Your task to perform on an android device: Find the nearest electronics store that's open today Image 0: 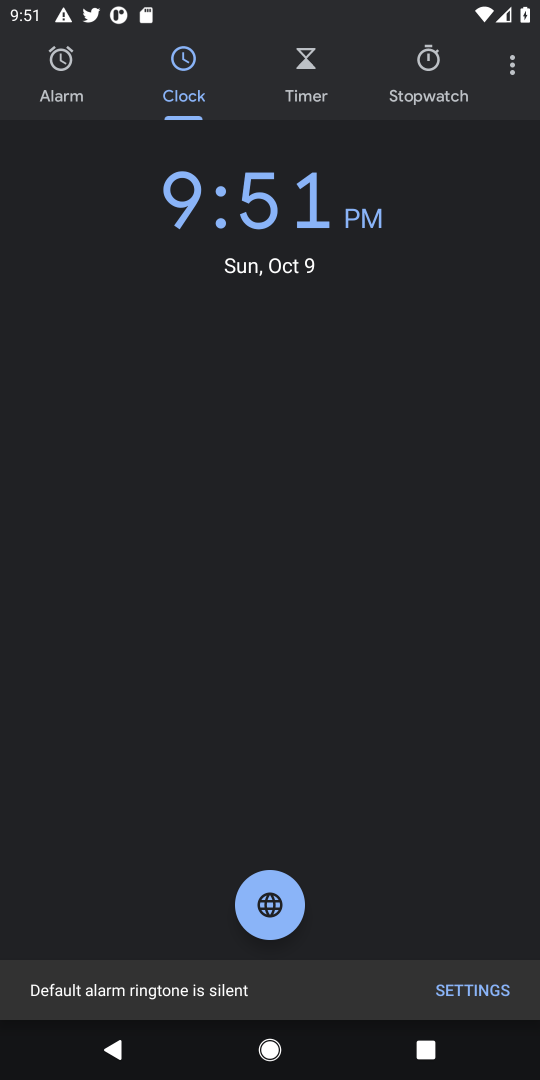
Step 0: press home button
Your task to perform on an android device: Find the nearest electronics store that's open today Image 1: 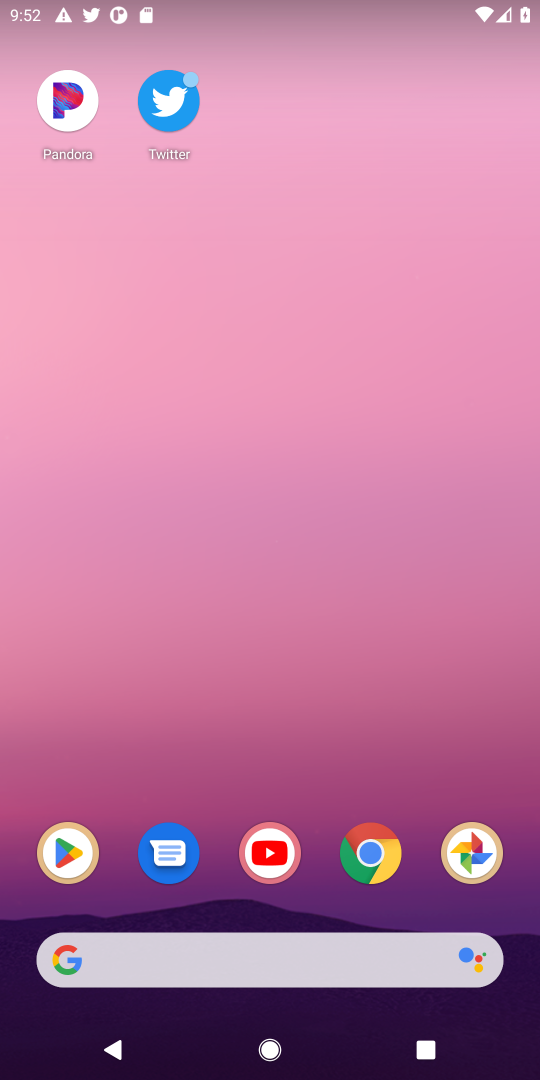
Step 1: type "electronics store that's open today"
Your task to perform on an android device: Find the nearest electronics store that's open today Image 2: 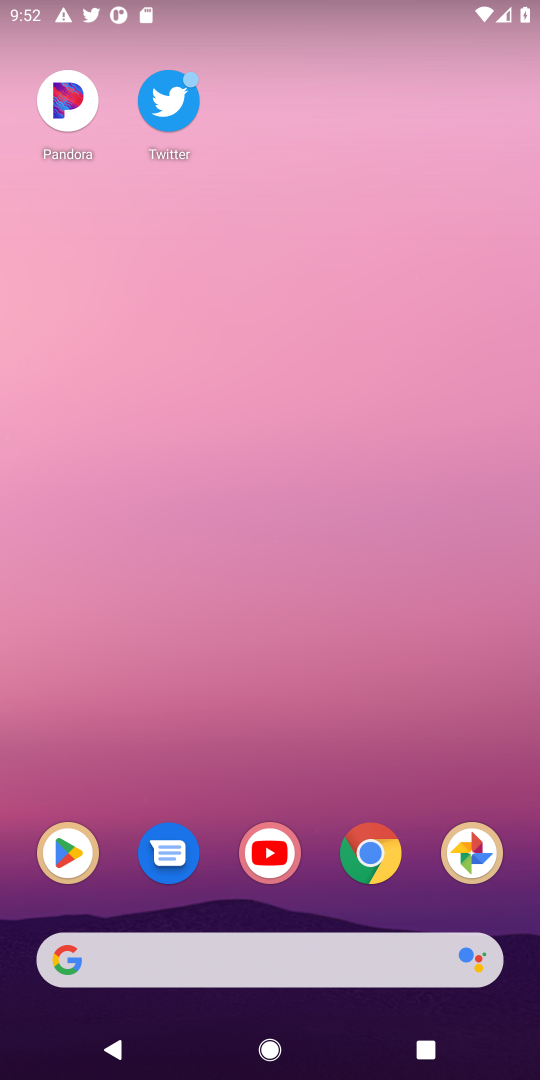
Step 2: click (373, 862)
Your task to perform on an android device: Find the nearest electronics store that's open today Image 3: 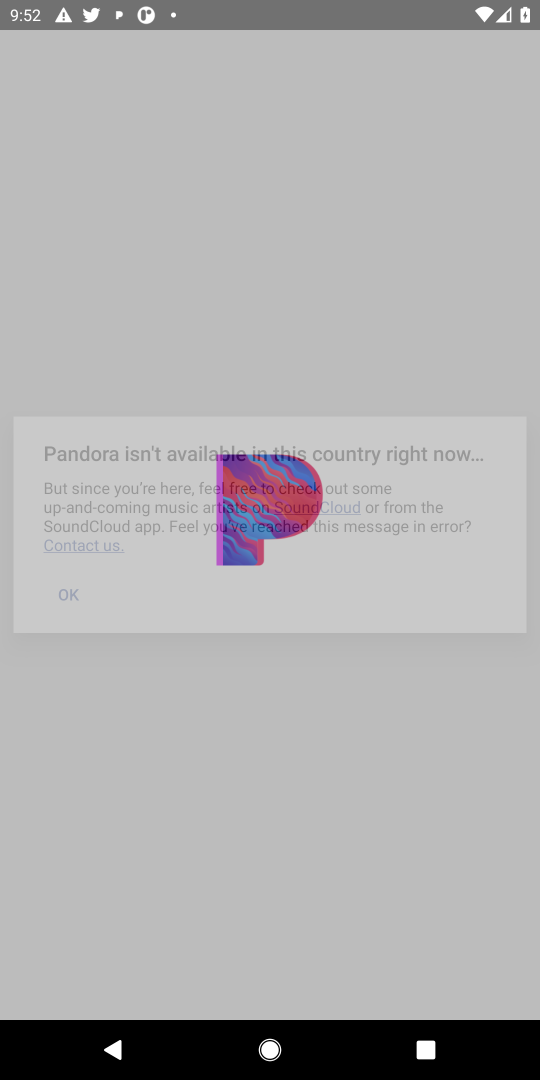
Step 3: click (361, 954)
Your task to perform on an android device: Find the nearest electronics store that's open today Image 4: 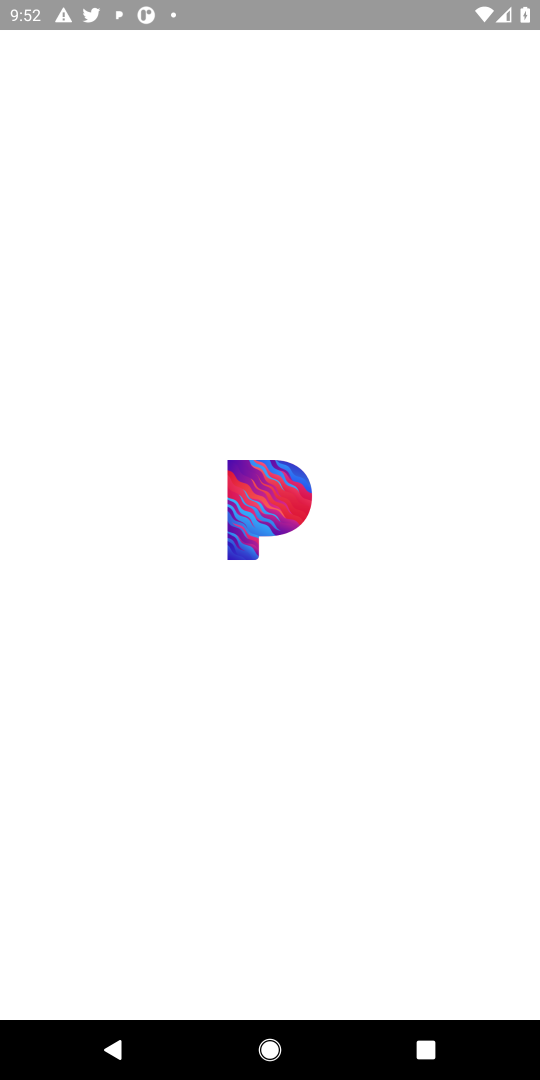
Step 4: click (442, 1042)
Your task to perform on an android device: Find the nearest electronics store that's open today Image 5: 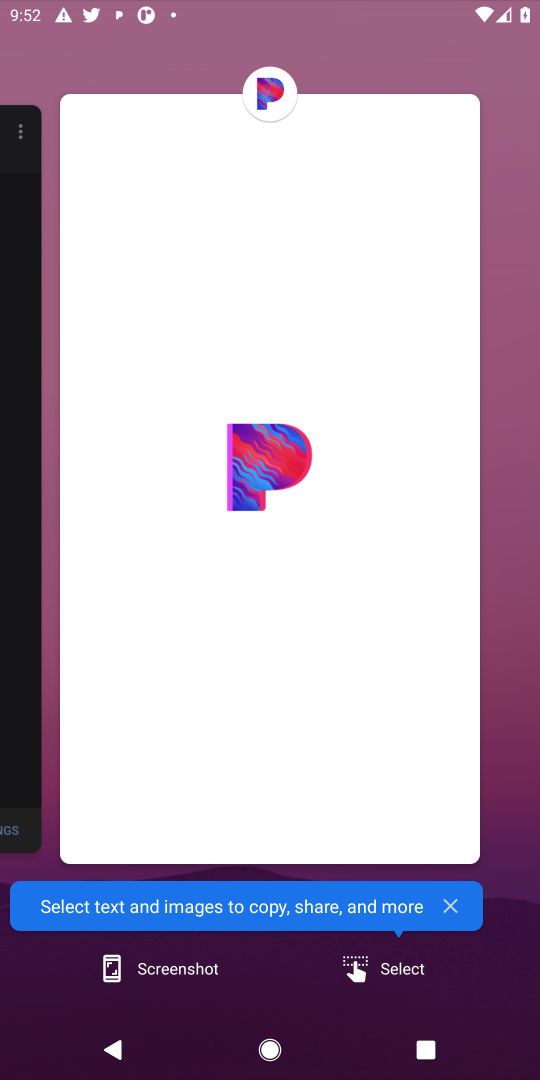
Step 5: press home button
Your task to perform on an android device: Find the nearest electronics store that's open today Image 6: 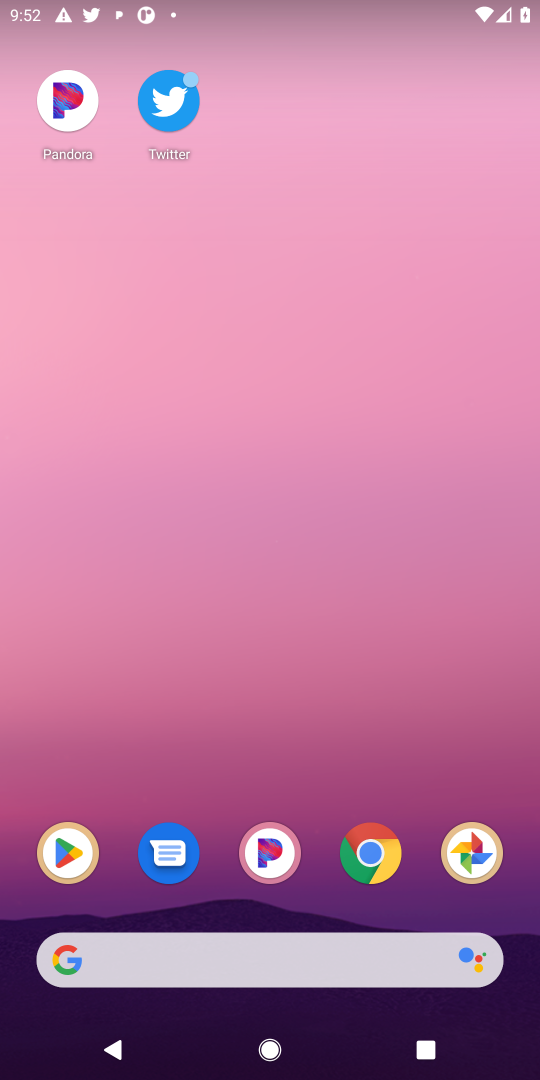
Step 6: click (364, 840)
Your task to perform on an android device: Find the nearest electronics store that's open today Image 7: 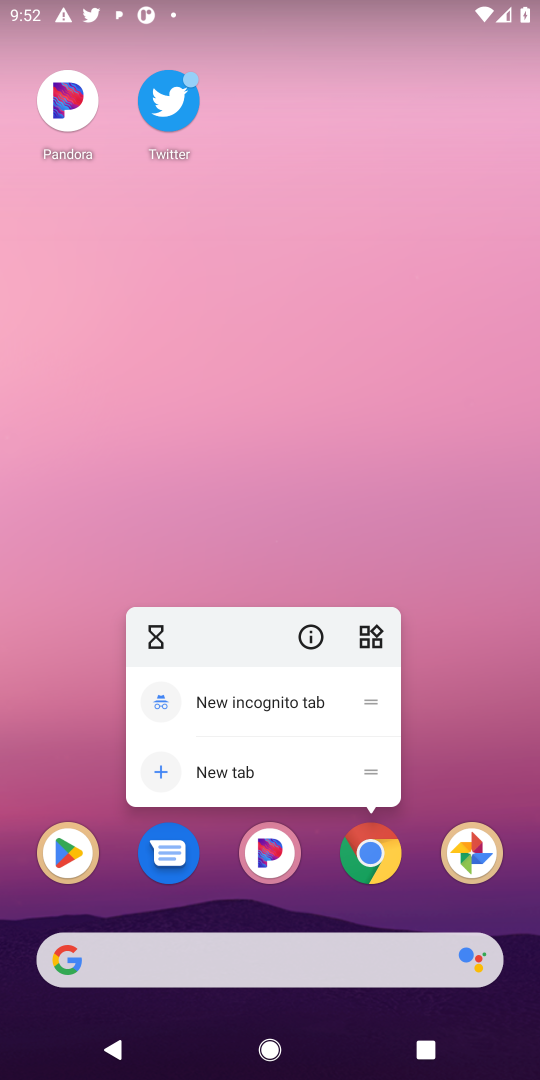
Step 7: click (482, 736)
Your task to perform on an android device: Find the nearest electronics store that's open today Image 8: 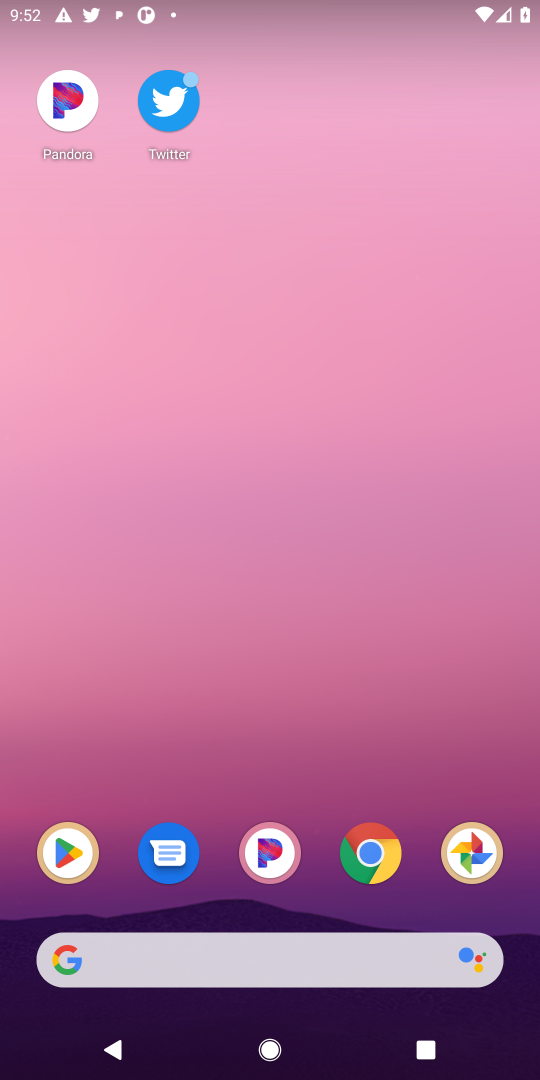
Step 8: click (362, 861)
Your task to perform on an android device: Find the nearest electronics store that's open today Image 9: 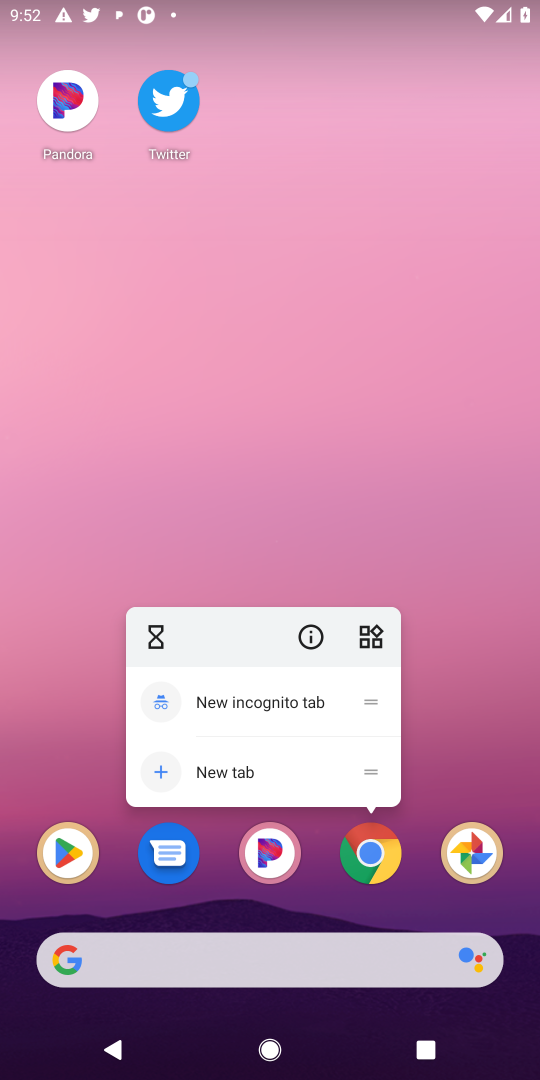
Step 9: click (335, 955)
Your task to perform on an android device: Find the nearest electronics store that's open today Image 10: 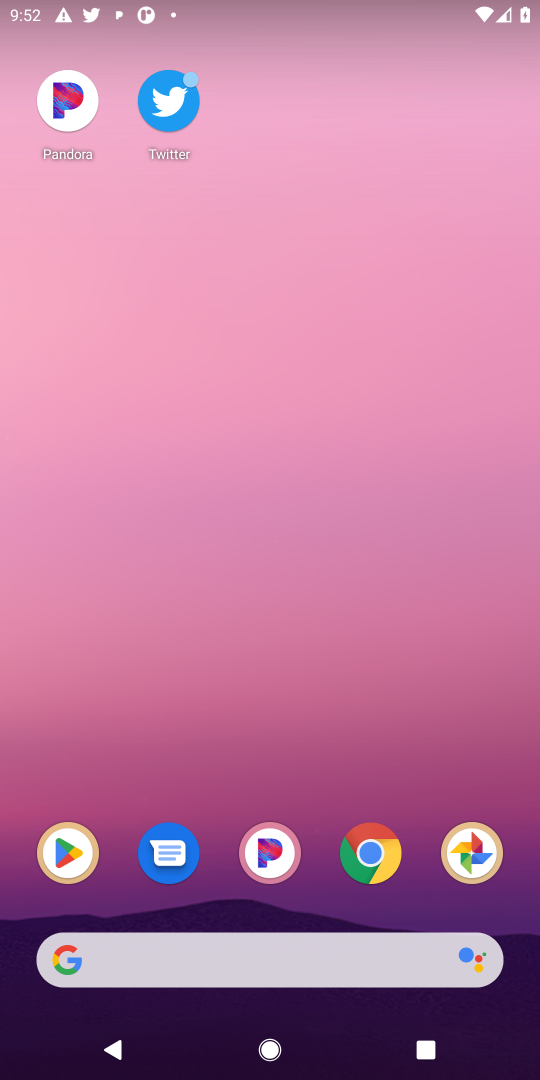
Step 10: click (335, 955)
Your task to perform on an android device: Find the nearest electronics store that's open today Image 11: 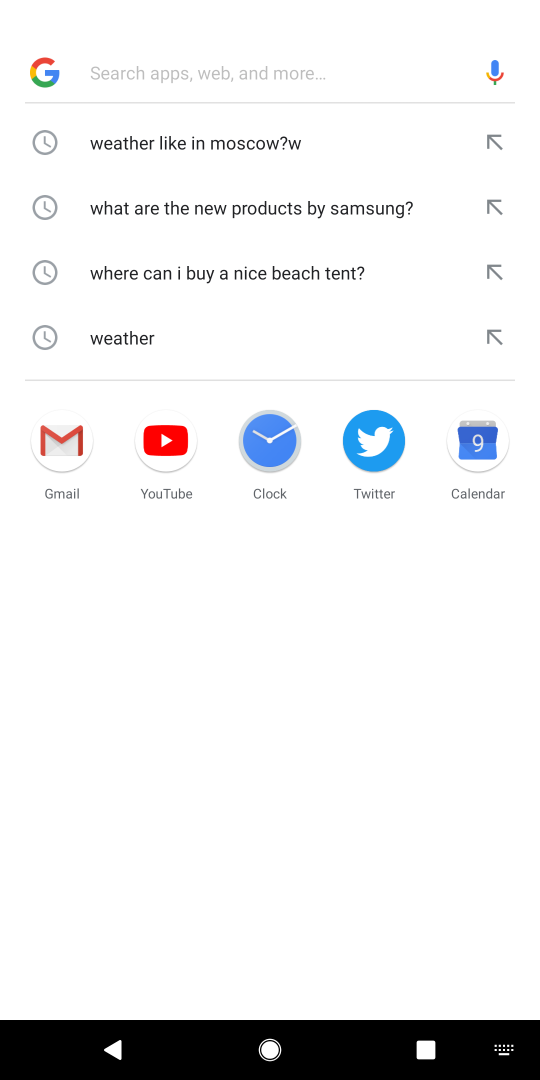
Step 11: type "electronics store that's open today"
Your task to perform on an android device: Find the nearest electronics store that's open today Image 12: 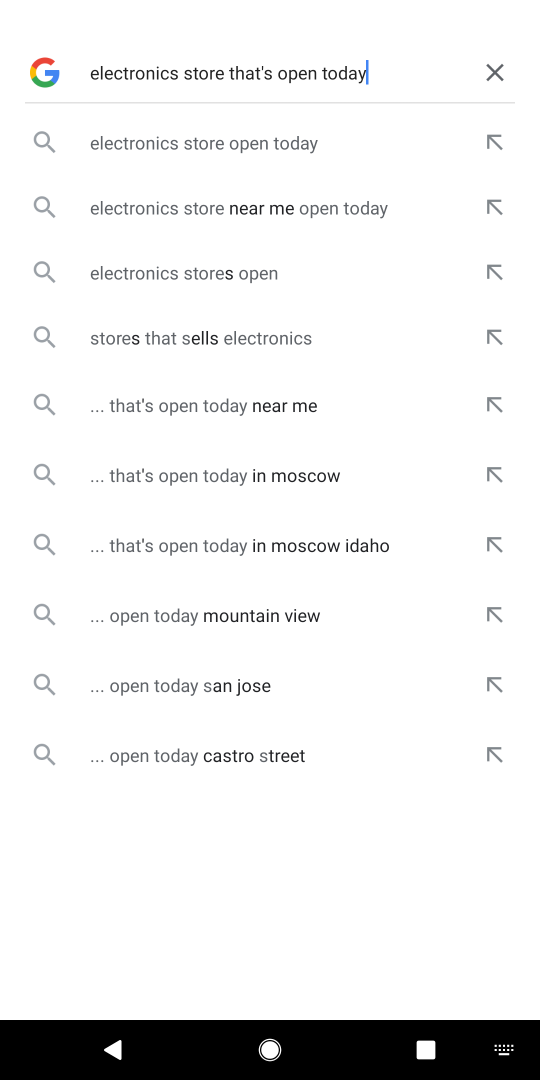
Step 12: type ""
Your task to perform on an android device: Find the nearest electronics store that's open today Image 13: 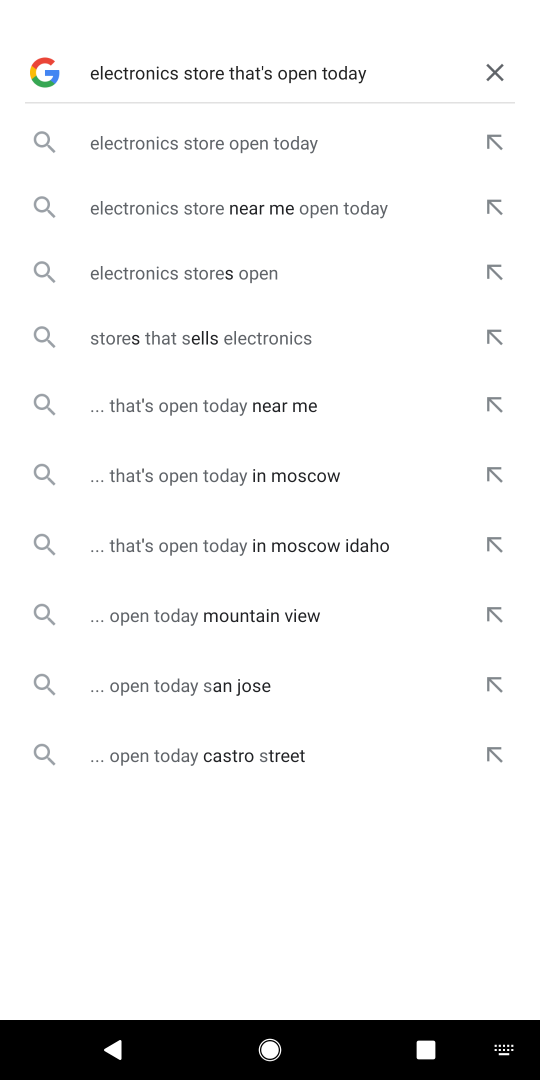
Step 13: press enter
Your task to perform on an android device: Find the nearest electronics store that's open today Image 14: 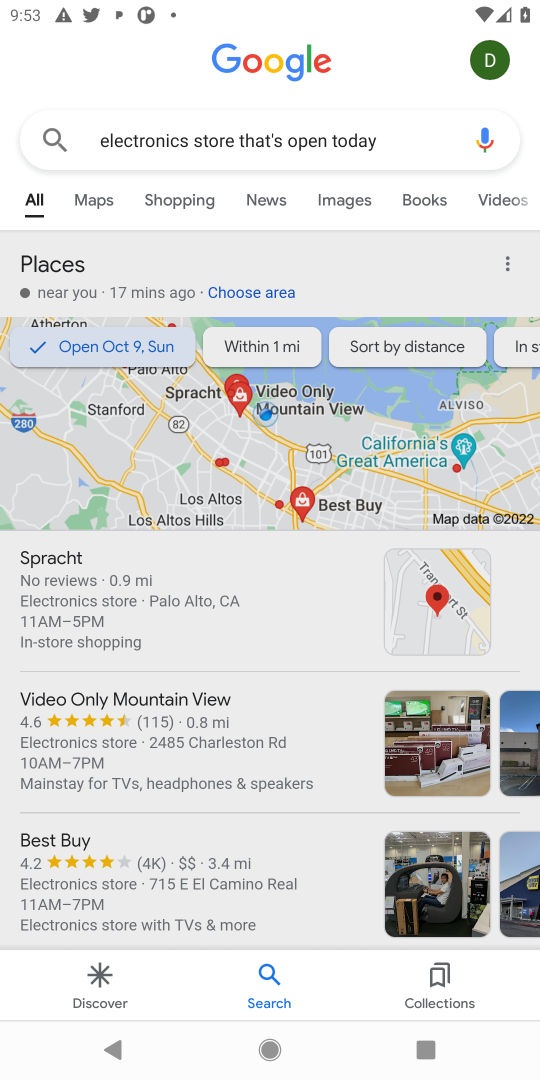
Step 14: drag from (185, 758) to (260, 279)
Your task to perform on an android device: Find the nearest electronics store that's open today Image 15: 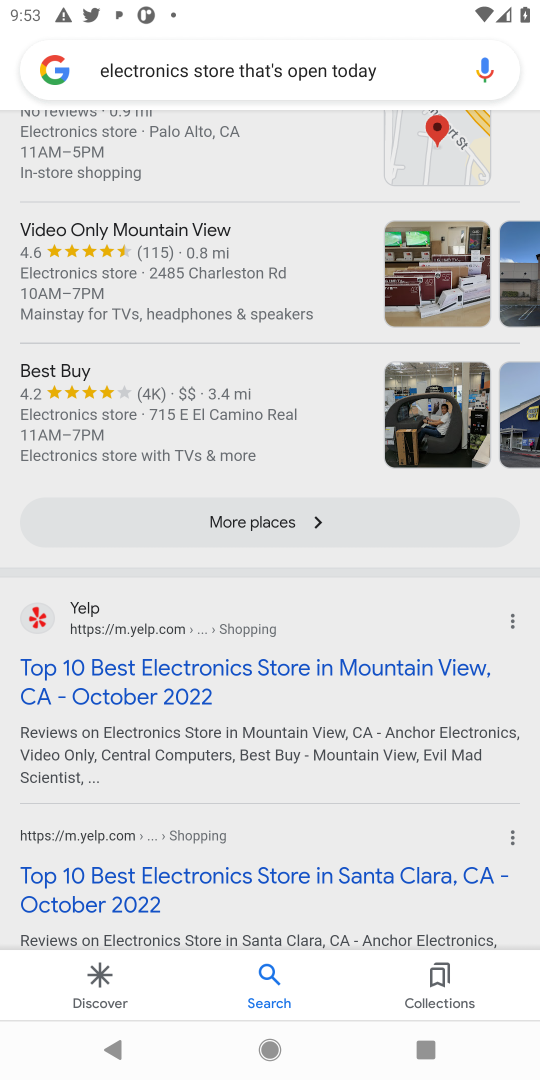
Step 15: drag from (240, 734) to (231, 865)
Your task to perform on an android device: Find the nearest electronics store that's open today Image 16: 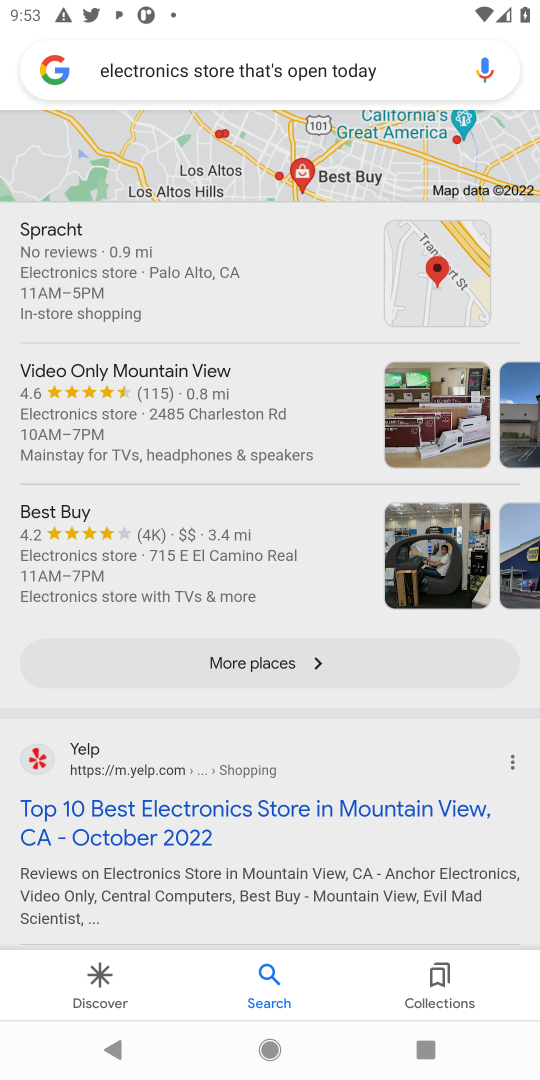
Step 16: click (259, 657)
Your task to perform on an android device: Find the nearest electronics store that's open today Image 17: 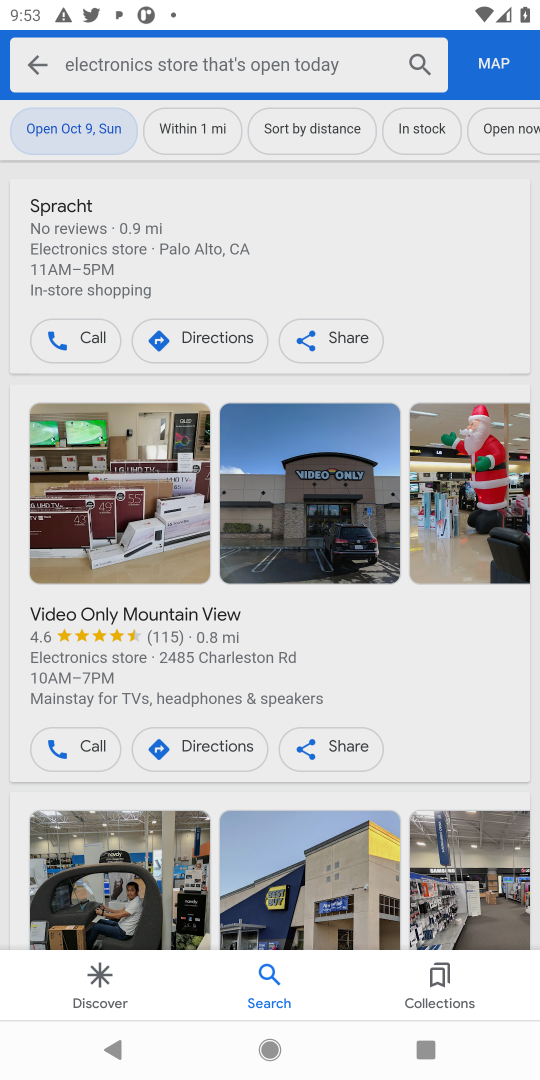
Step 17: drag from (277, 266) to (251, 729)
Your task to perform on an android device: Find the nearest electronics store that's open today Image 18: 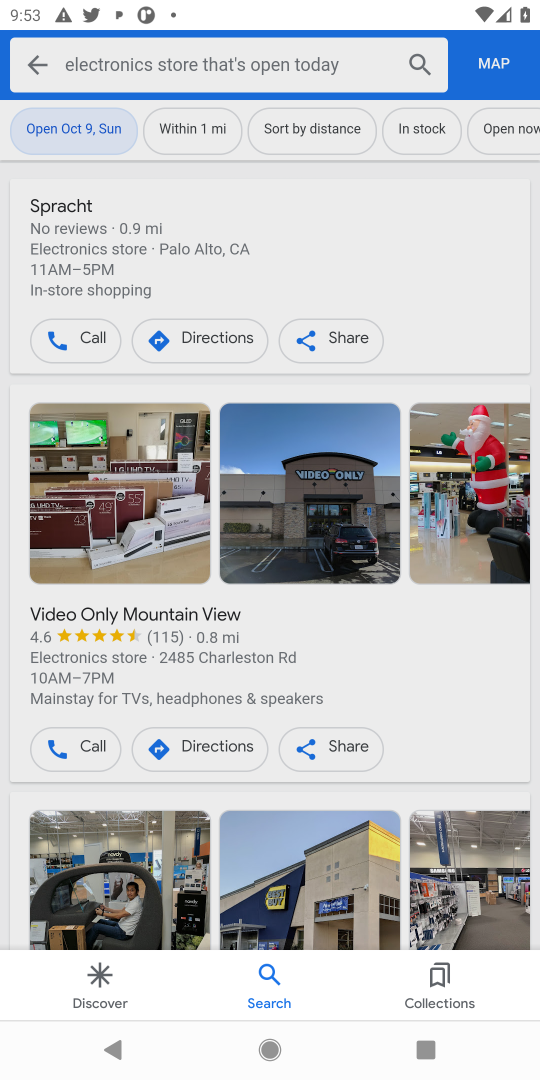
Step 18: drag from (299, 786) to (310, 235)
Your task to perform on an android device: Find the nearest electronics store that's open today Image 19: 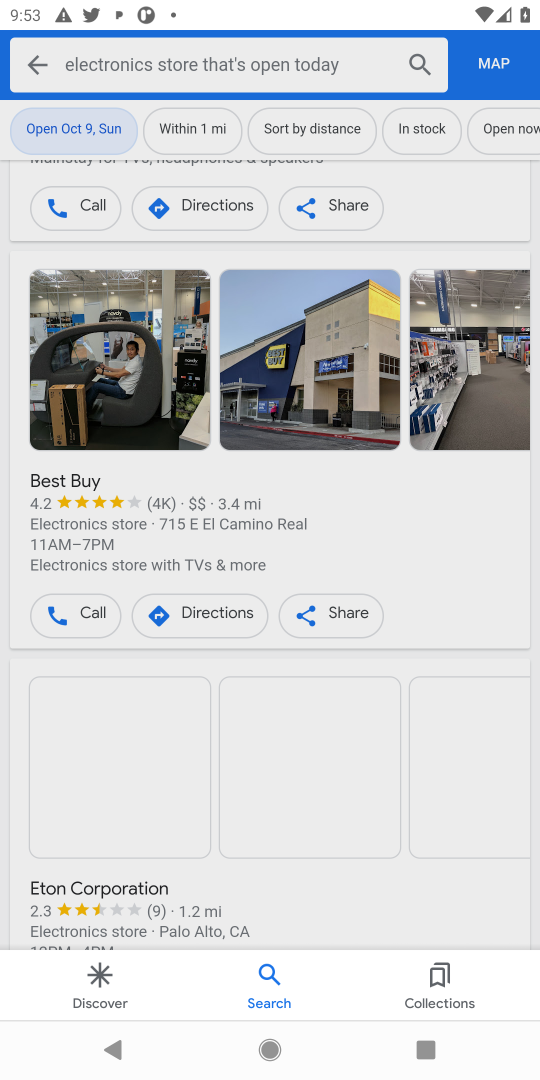
Step 19: drag from (299, 613) to (322, 222)
Your task to perform on an android device: Find the nearest electronics store that's open today Image 20: 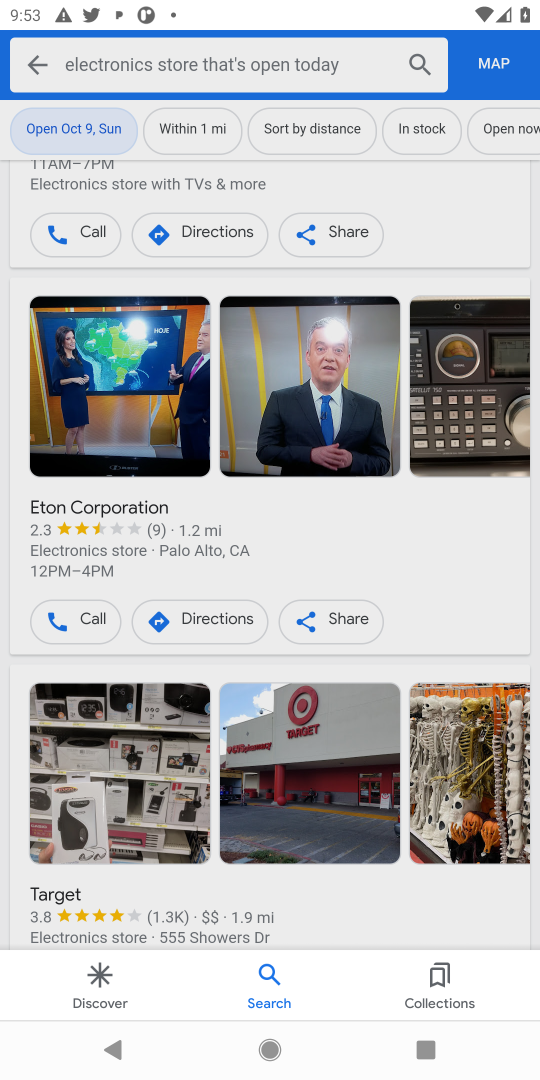
Step 20: drag from (264, 609) to (293, 373)
Your task to perform on an android device: Find the nearest electronics store that's open today Image 21: 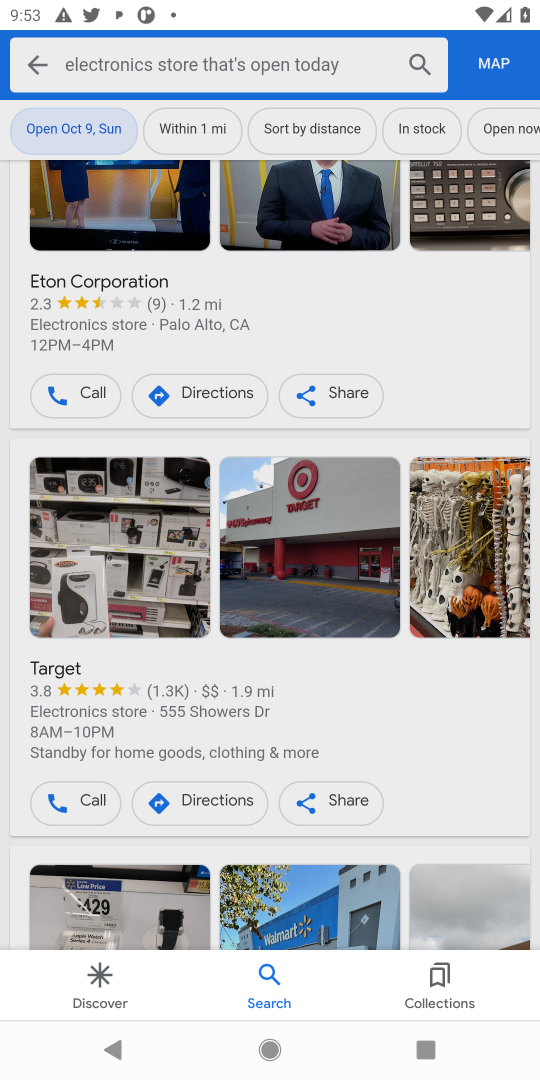
Step 21: drag from (286, 508) to (312, 266)
Your task to perform on an android device: Find the nearest electronics store that's open today Image 22: 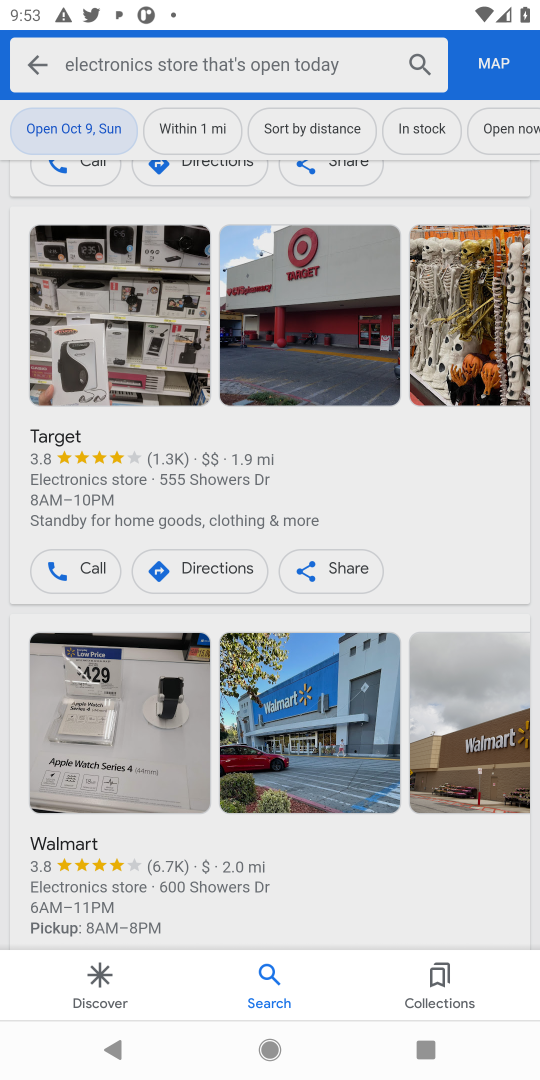
Step 22: drag from (311, 430) to (329, 289)
Your task to perform on an android device: Find the nearest electronics store that's open today Image 23: 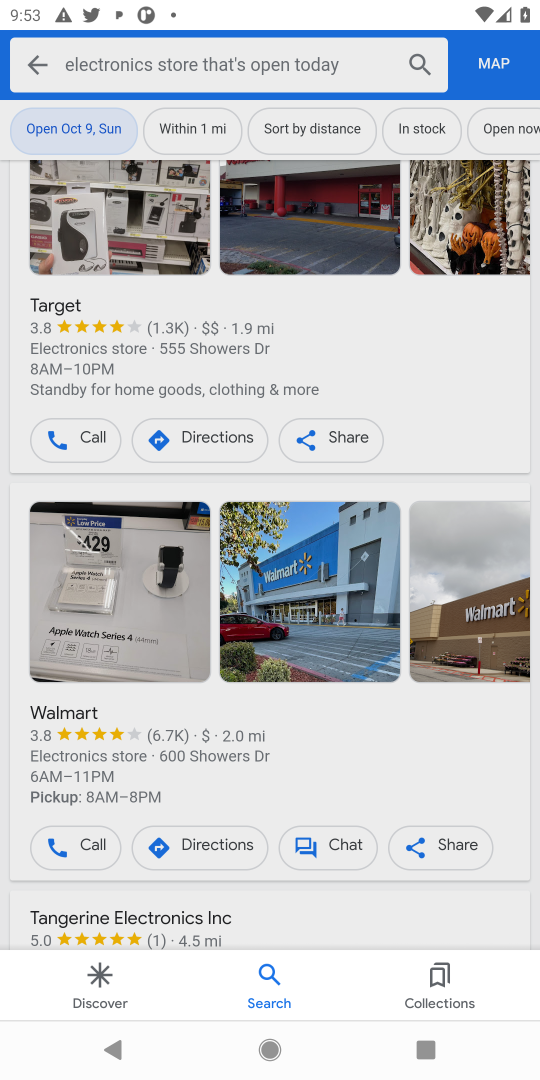
Step 23: drag from (270, 651) to (295, 273)
Your task to perform on an android device: Find the nearest electronics store that's open today Image 24: 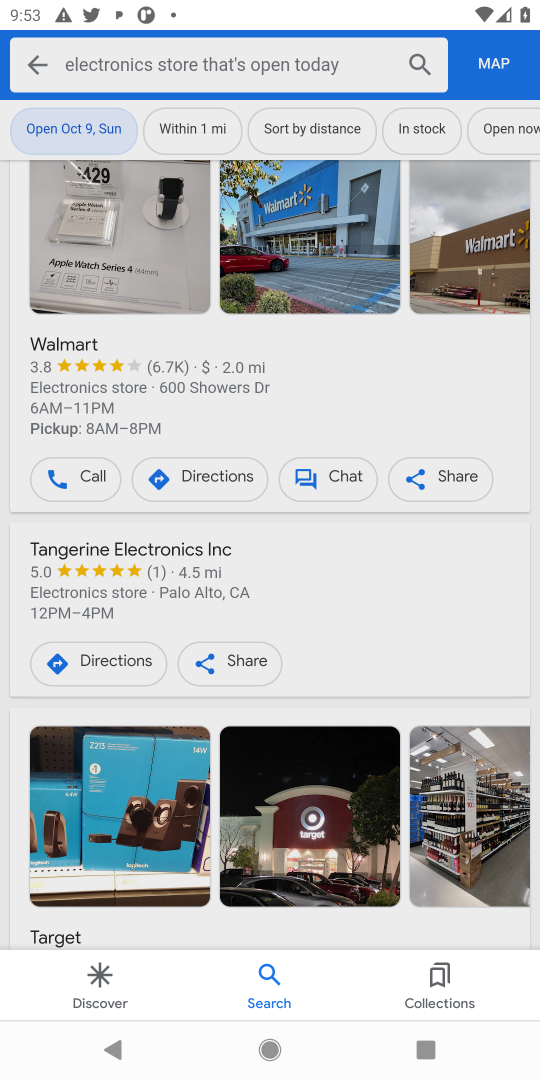
Step 24: drag from (382, 406) to (386, 244)
Your task to perform on an android device: Find the nearest electronics store that's open today Image 25: 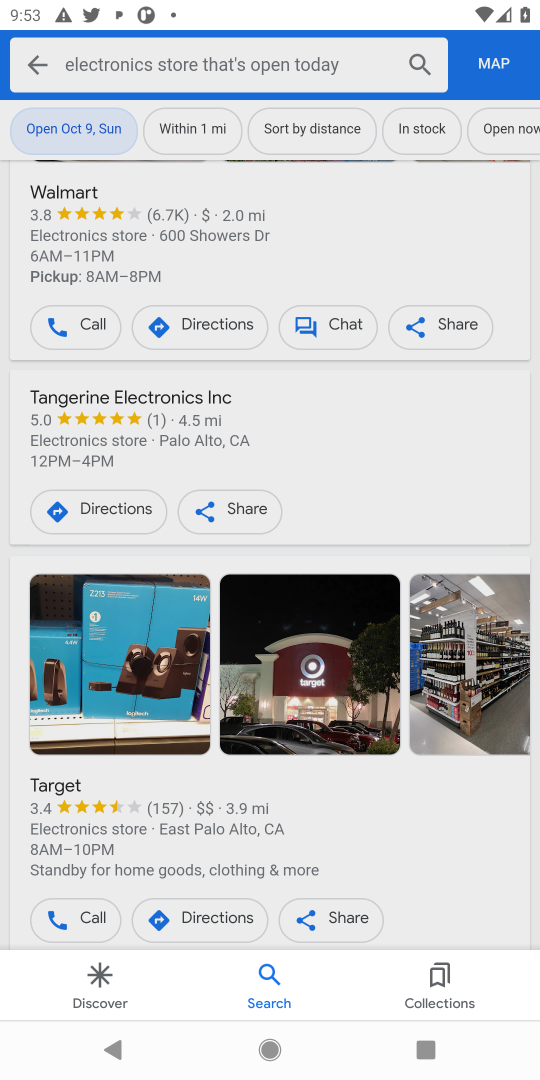
Step 25: drag from (368, 612) to (384, 174)
Your task to perform on an android device: Find the nearest electronics store that's open today Image 26: 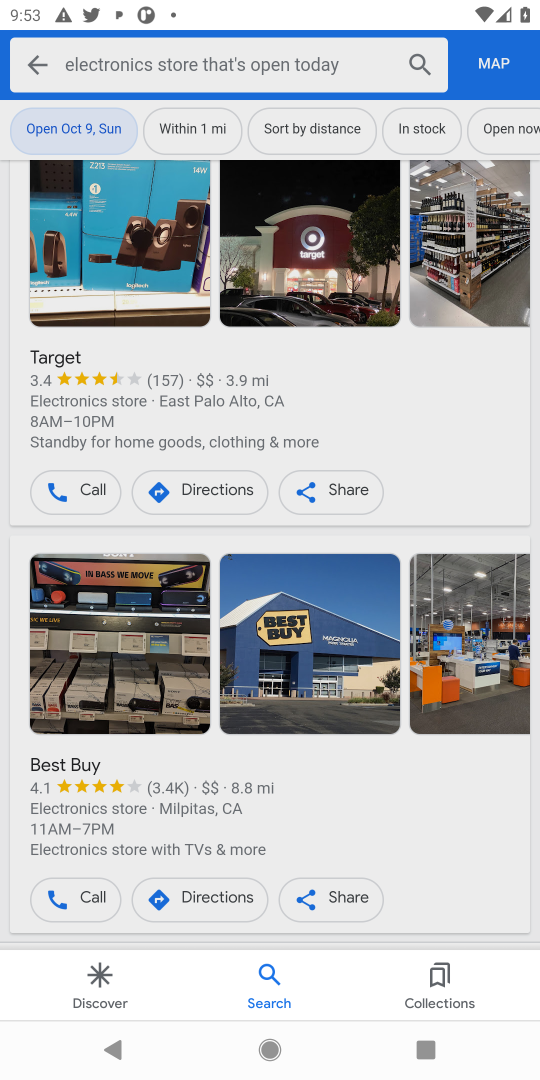
Step 26: drag from (289, 614) to (318, 239)
Your task to perform on an android device: Find the nearest electronics store that's open today Image 27: 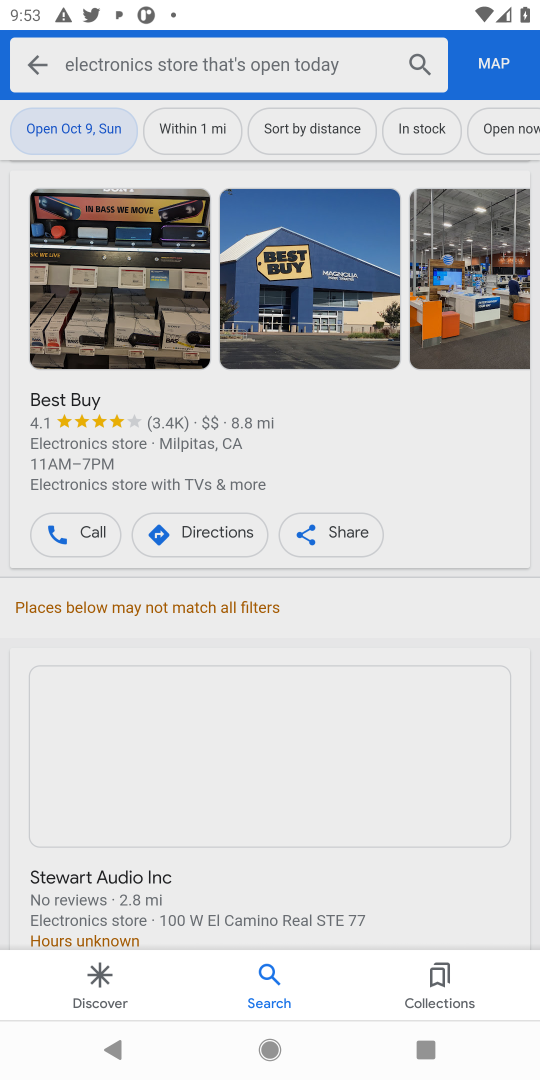
Step 27: drag from (323, 249) to (335, 198)
Your task to perform on an android device: Find the nearest electronics store that's open today Image 28: 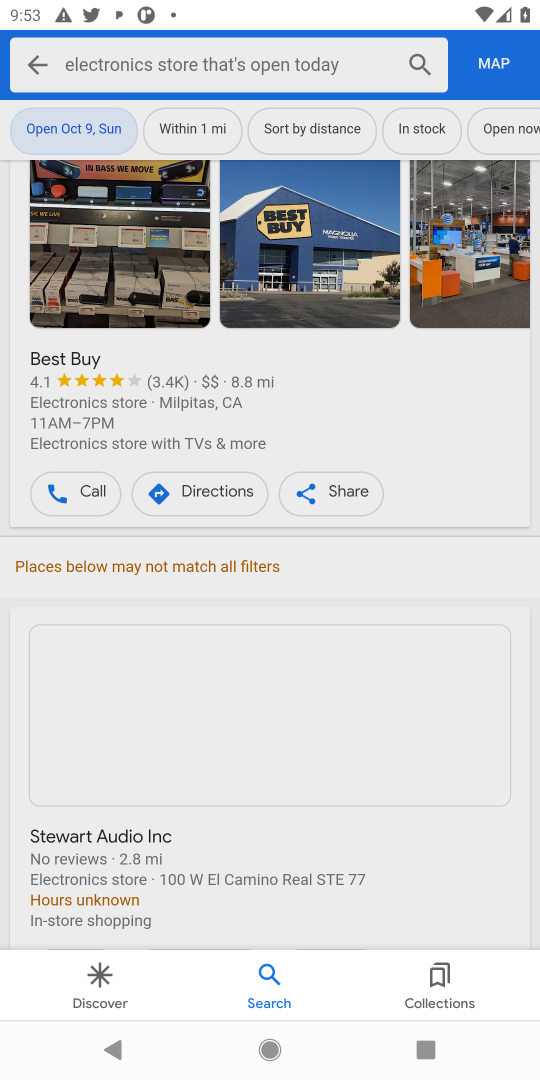
Step 28: drag from (309, 457) to (313, 171)
Your task to perform on an android device: Find the nearest electronics store that's open today Image 29: 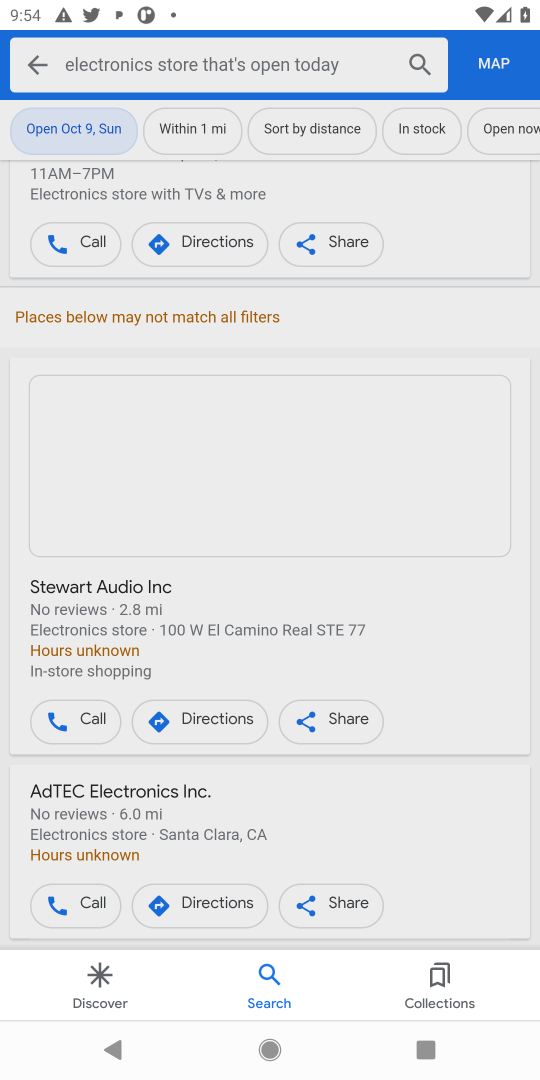
Step 29: drag from (282, 515) to (304, 168)
Your task to perform on an android device: Find the nearest electronics store that's open today Image 30: 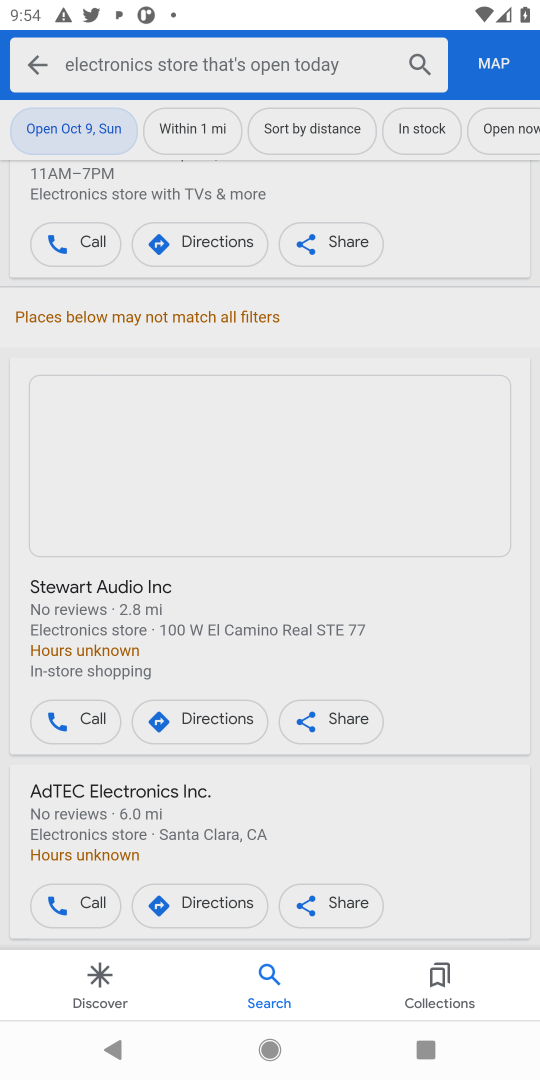
Step 30: drag from (324, 600) to (348, 223)
Your task to perform on an android device: Find the nearest electronics store that's open today Image 31: 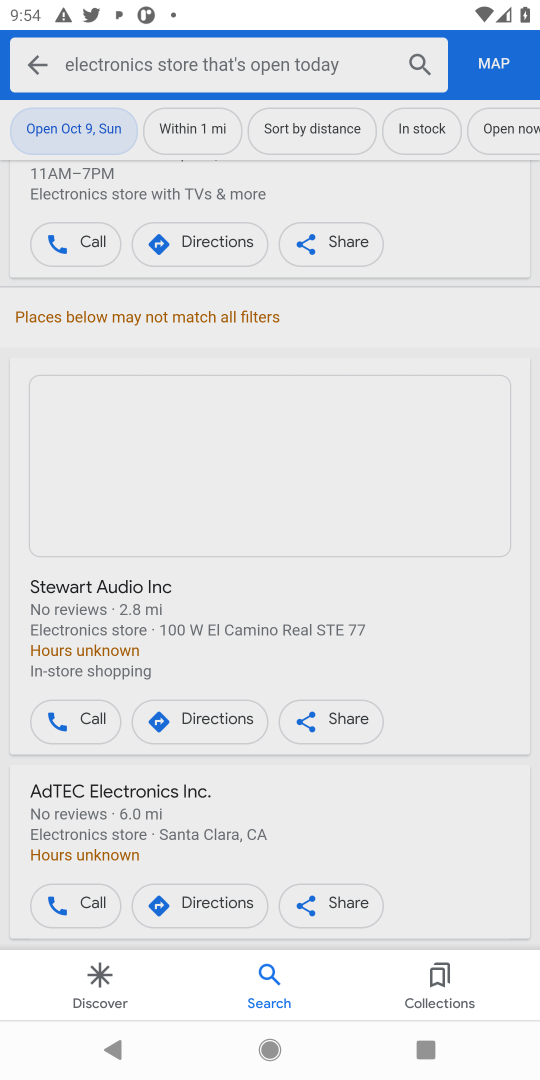
Step 31: drag from (295, 617) to (327, 237)
Your task to perform on an android device: Find the nearest electronics store that's open today Image 32: 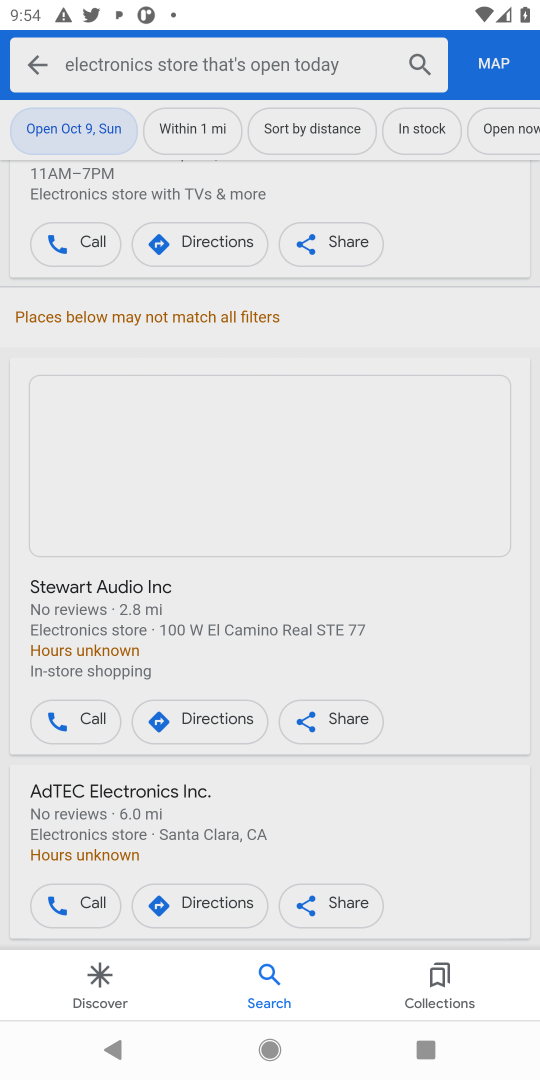
Step 32: drag from (337, 365) to (325, 221)
Your task to perform on an android device: Find the nearest electronics store that's open today Image 33: 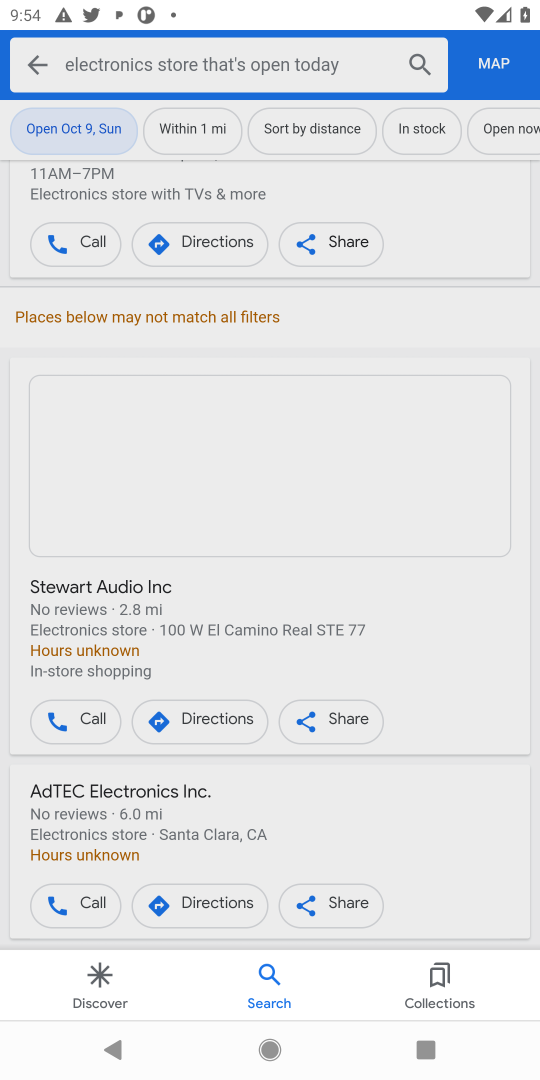
Step 33: press back button
Your task to perform on an android device: Find the nearest electronics store that's open today Image 34: 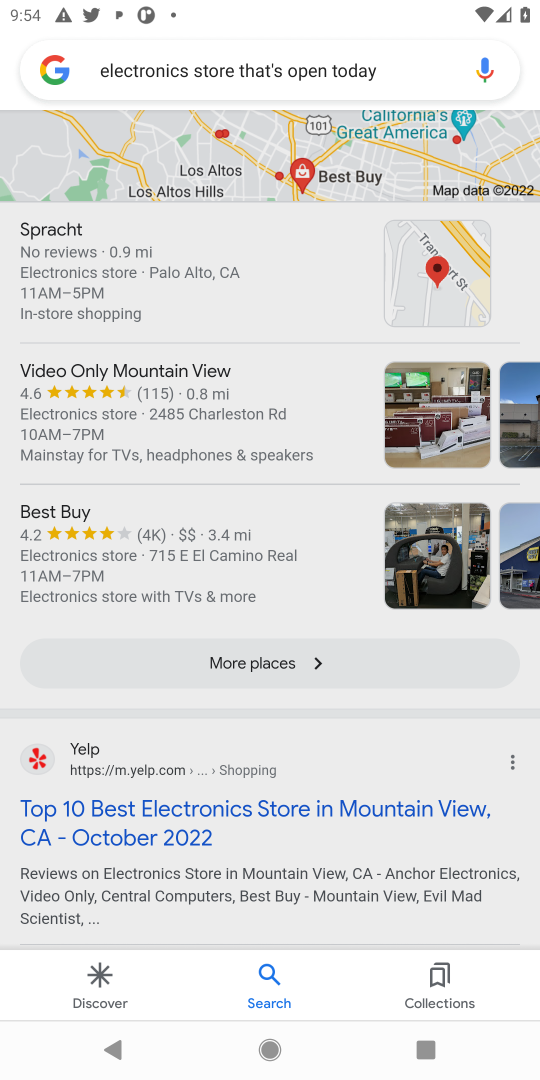
Step 34: drag from (279, 684) to (250, 236)
Your task to perform on an android device: Find the nearest electronics store that's open today Image 35: 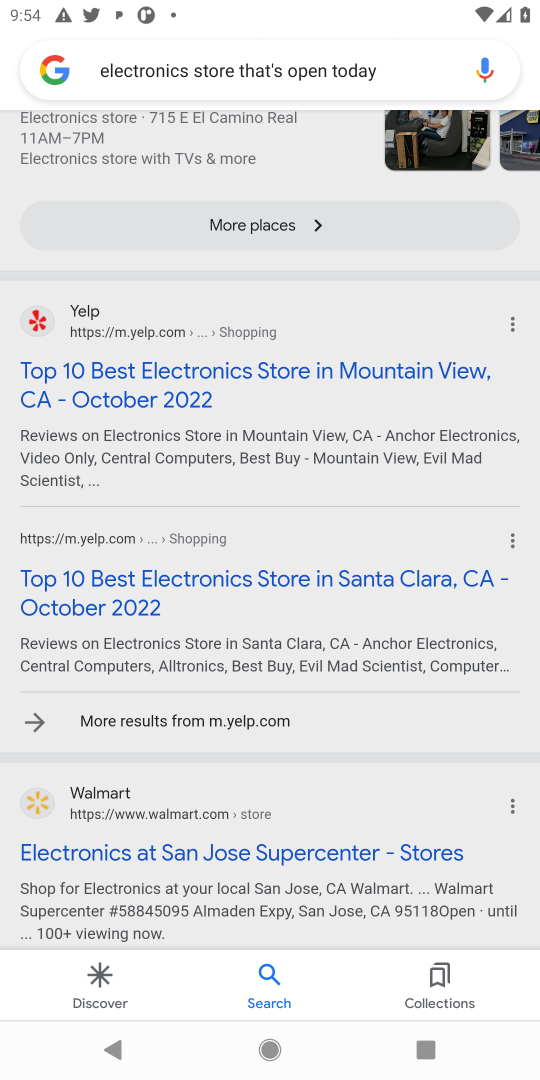
Step 35: click (317, 576)
Your task to perform on an android device: Find the nearest electronics store that's open today Image 36: 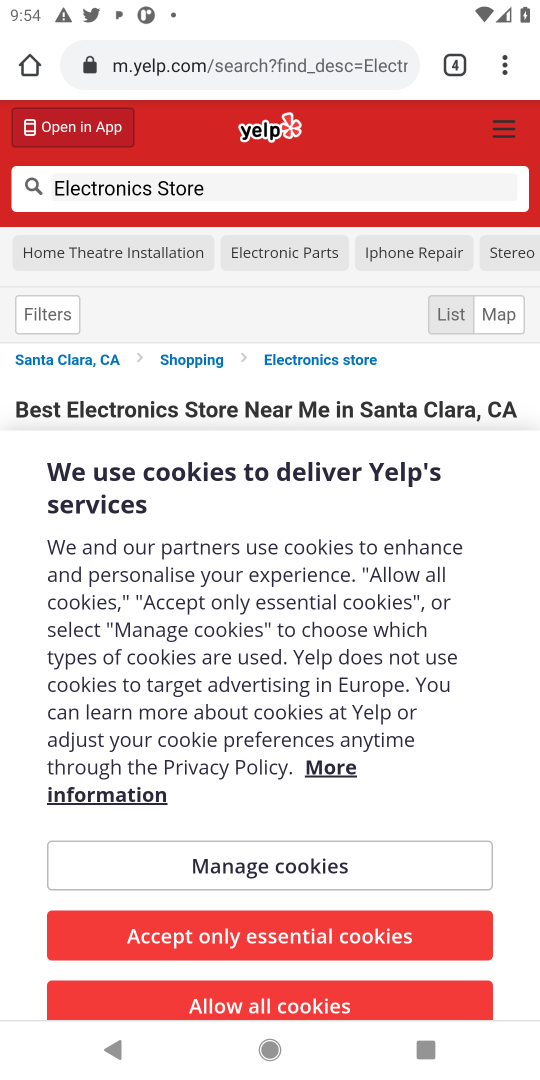
Step 36: drag from (294, 650) to (280, 198)
Your task to perform on an android device: Find the nearest electronics store that's open today Image 37: 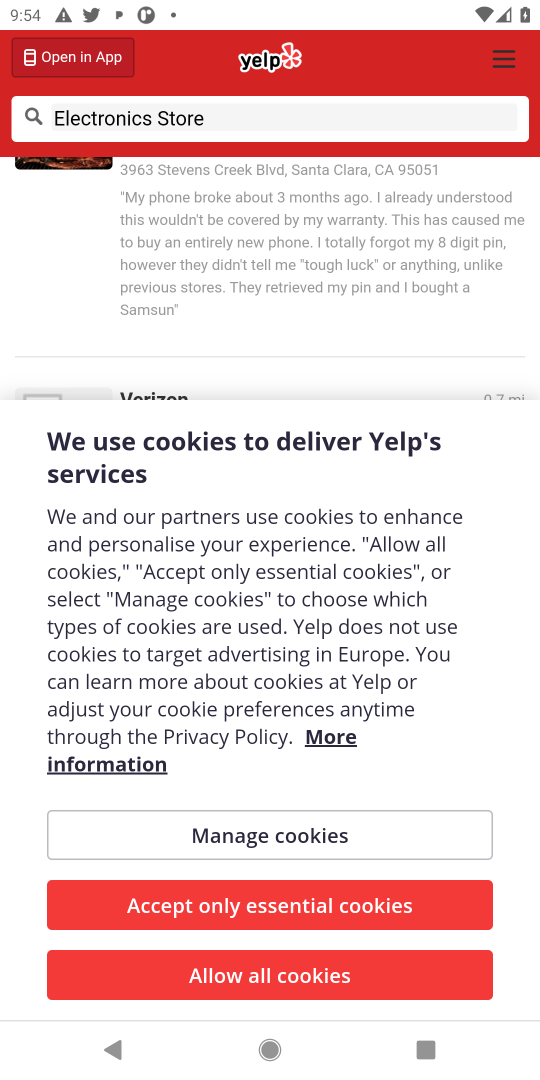
Step 37: drag from (356, 617) to (360, 413)
Your task to perform on an android device: Find the nearest electronics store that's open today Image 38: 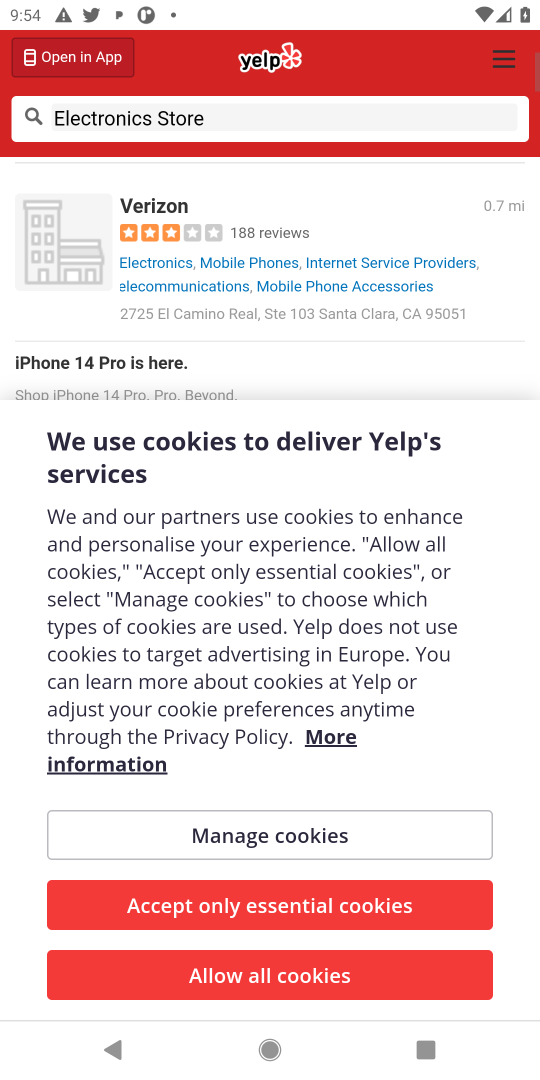
Step 38: click (199, 994)
Your task to perform on an android device: Find the nearest electronics store that's open today Image 39: 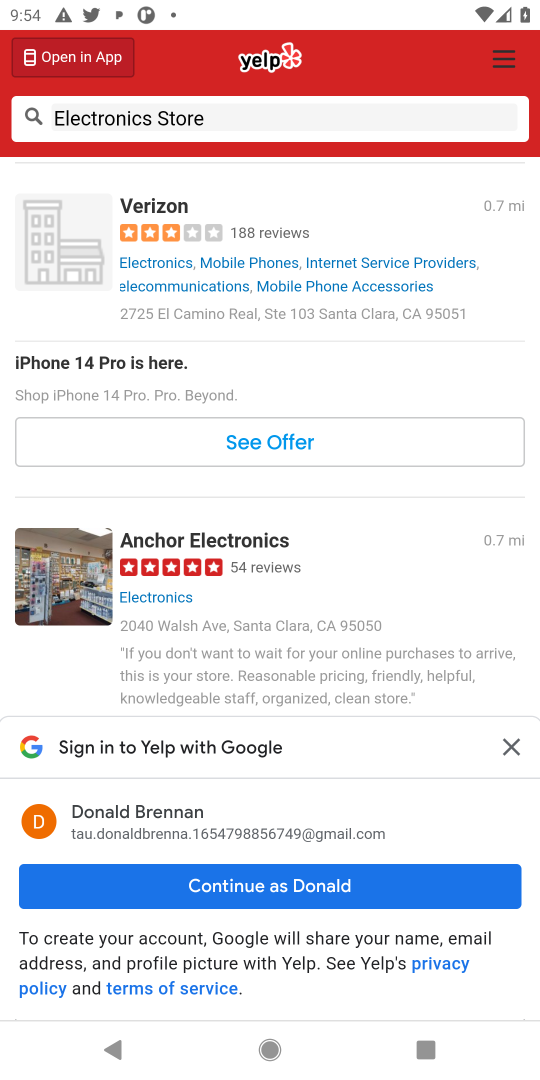
Step 39: drag from (418, 578) to (460, 180)
Your task to perform on an android device: Find the nearest electronics store that's open today Image 40: 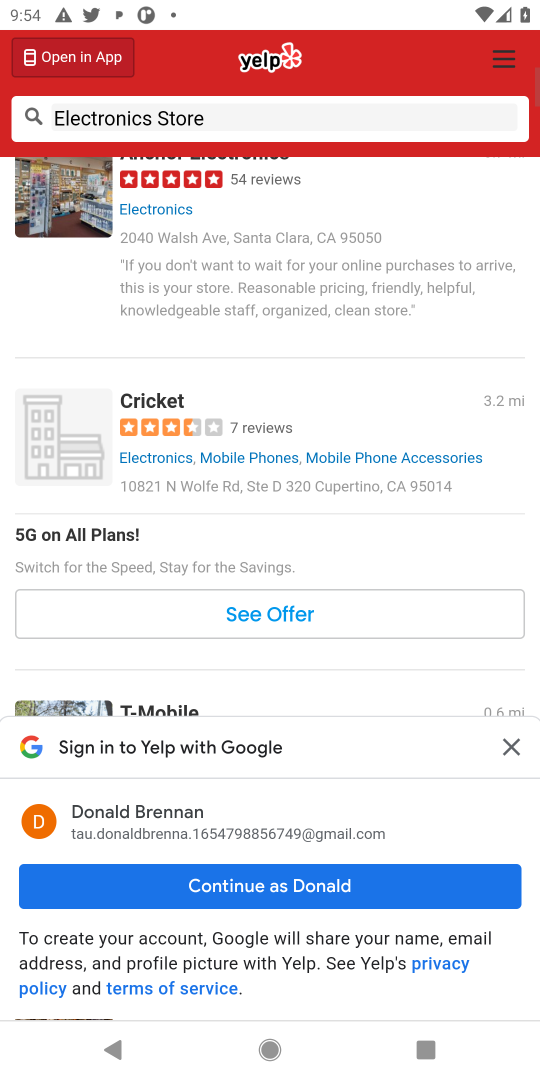
Step 40: drag from (502, 639) to (503, 267)
Your task to perform on an android device: Find the nearest electronics store that's open today Image 41: 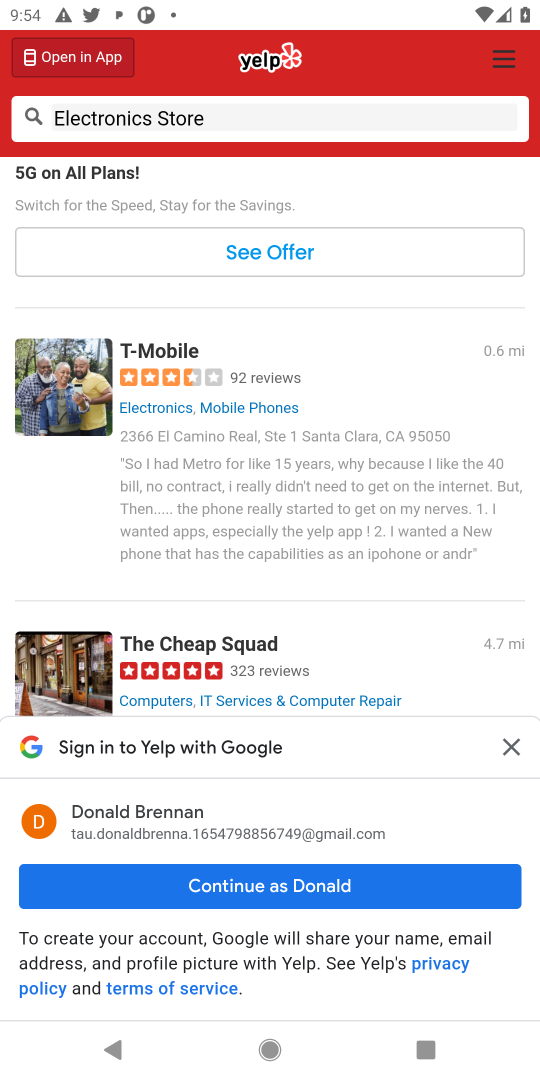
Step 41: drag from (383, 606) to (407, 363)
Your task to perform on an android device: Find the nearest electronics store that's open today Image 42: 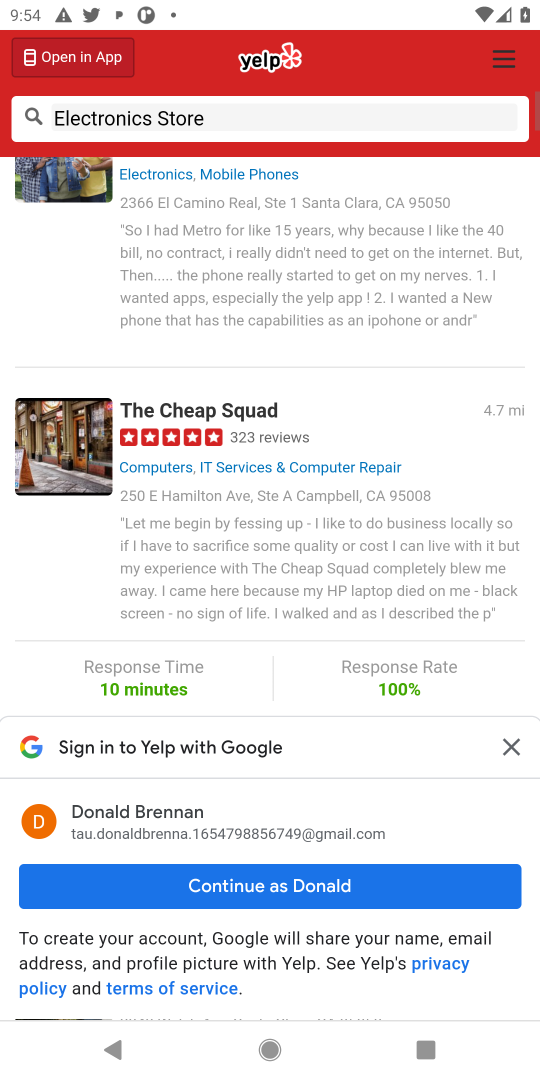
Step 42: click (512, 747)
Your task to perform on an android device: Find the nearest electronics store that's open today Image 43: 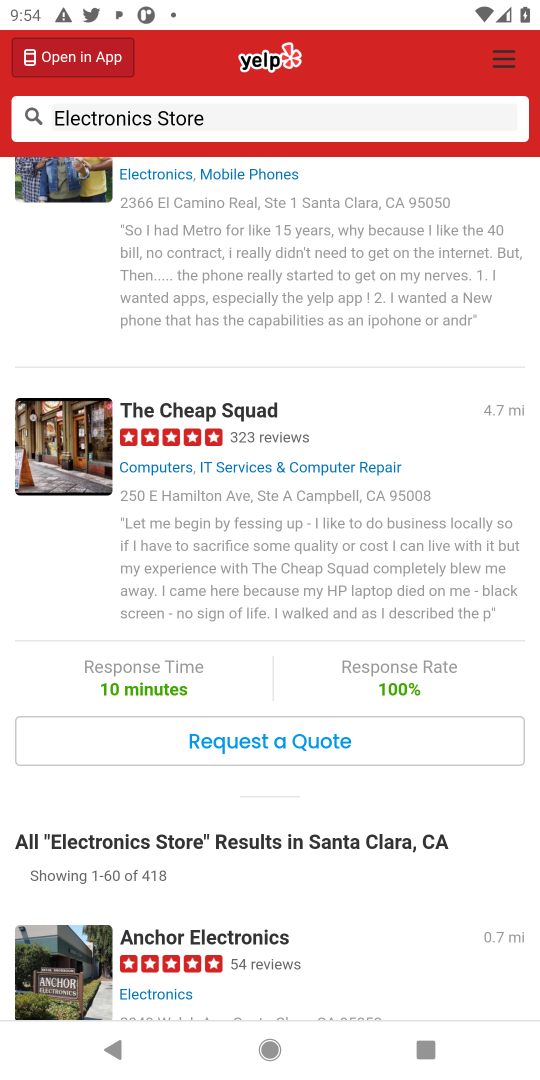
Step 43: task complete